Your task to perform on an android device: check battery use Image 0: 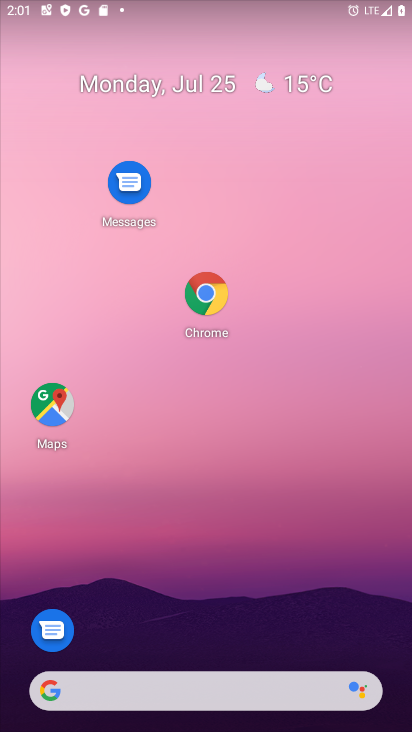
Step 0: drag from (374, 641) to (264, 181)
Your task to perform on an android device: check battery use Image 1: 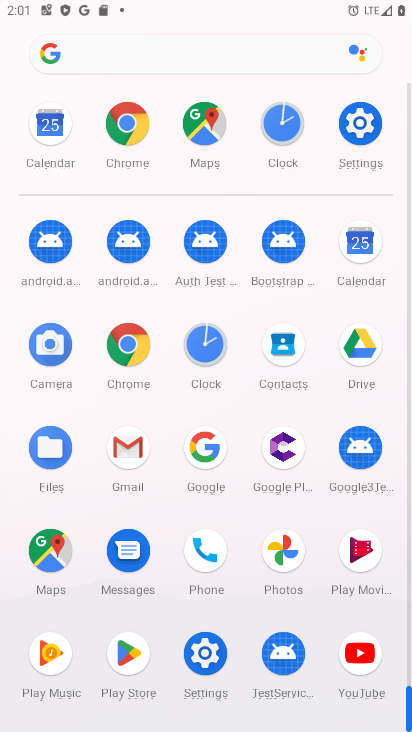
Step 1: click (216, 668)
Your task to perform on an android device: check battery use Image 2: 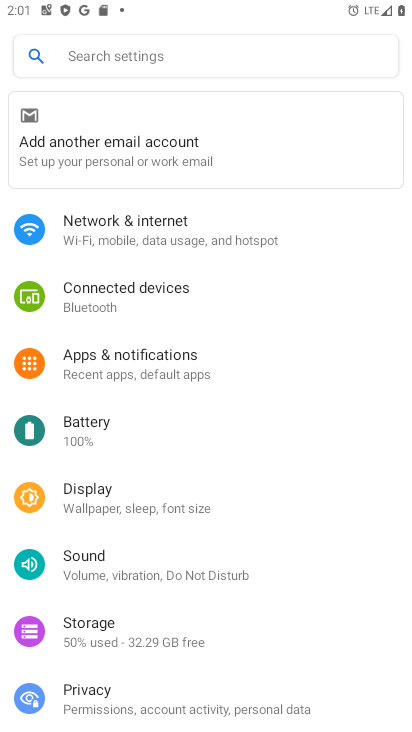
Step 2: click (88, 441)
Your task to perform on an android device: check battery use Image 3: 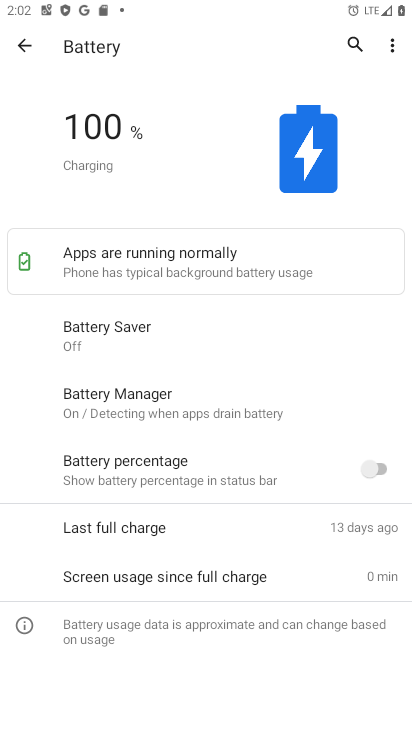
Step 3: task complete